Your task to perform on an android device: Go to CNN.com Image 0: 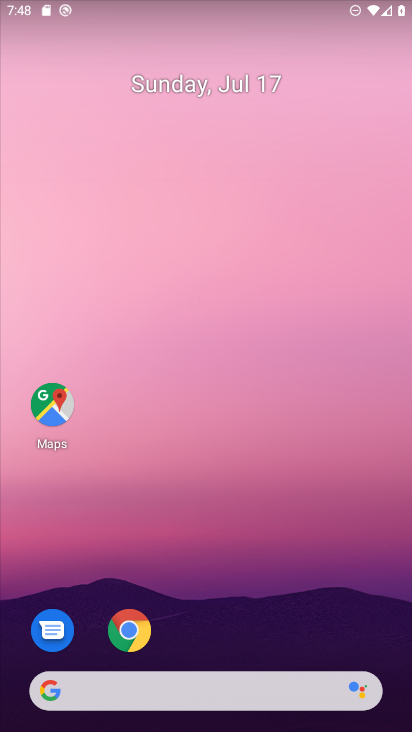
Step 0: drag from (186, 639) to (238, 178)
Your task to perform on an android device: Go to CNN.com Image 1: 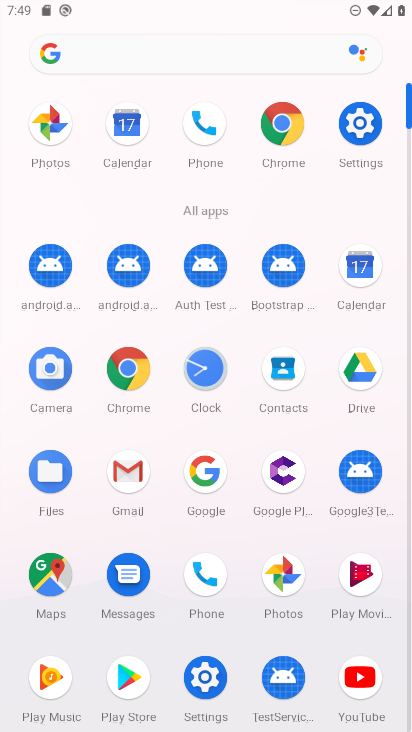
Step 1: click (275, 134)
Your task to perform on an android device: Go to CNN.com Image 2: 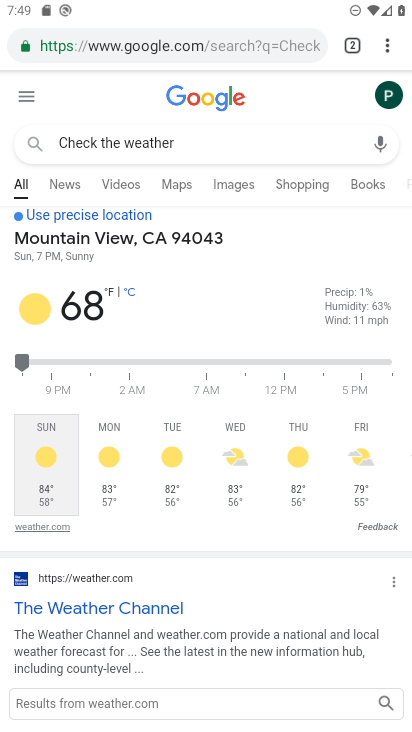
Step 2: click (390, 45)
Your task to perform on an android device: Go to CNN.com Image 3: 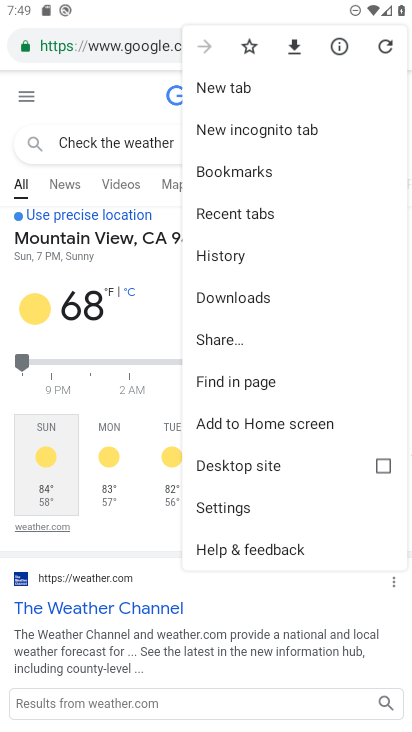
Step 3: click (233, 90)
Your task to perform on an android device: Go to CNN.com Image 4: 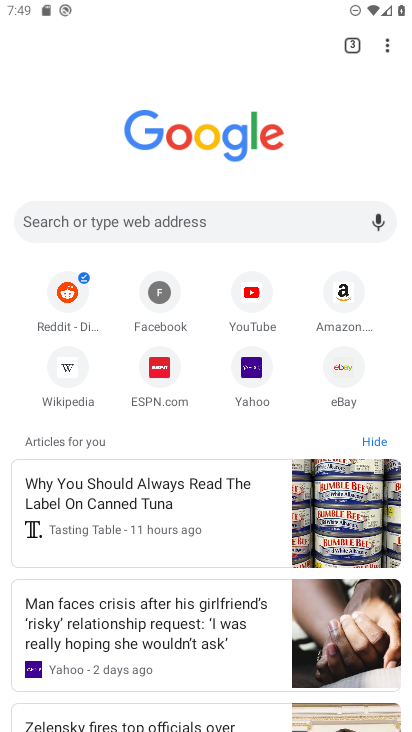
Step 4: click (245, 220)
Your task to perform on an android device: Go to CNN.com Image 5: 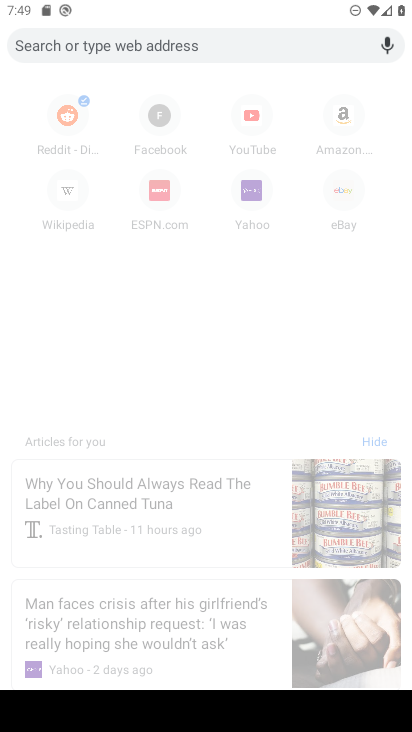
Step 5: type " CNN.com "
Your task to perform on an android device: Go to CNN.com Image 6: 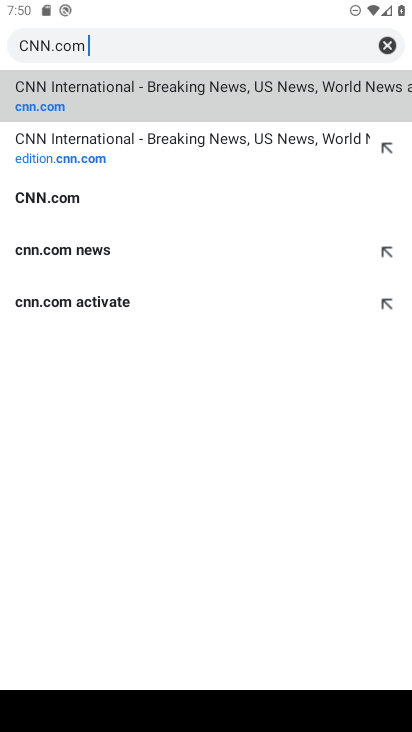
Step 6: click (256, 93)
Your task to perform on an android device: Go to CNN.com Image 7: 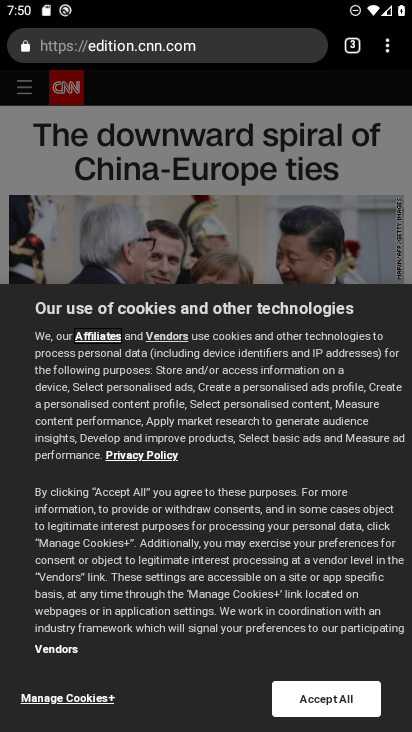
Step 7: task complete